Your task to perform on an android device: Go to notification settings Image 0: 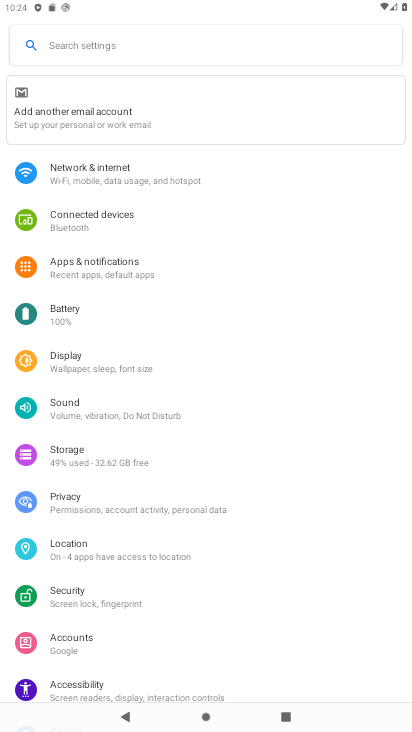
Step 0: click (86, 270)
Your task to perform on an android device: Go to notification settings Image 1: 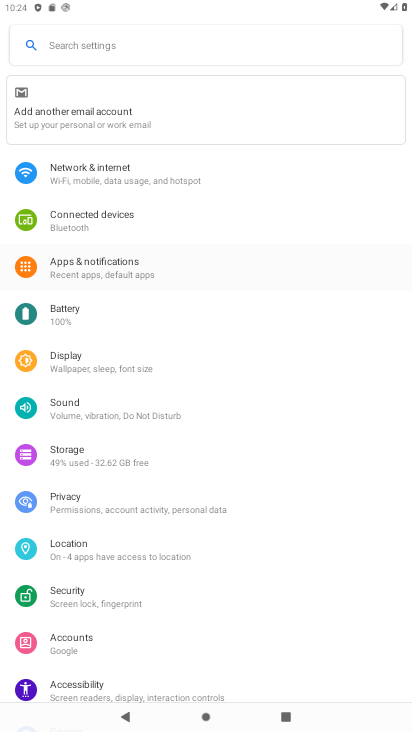
Step 1: click (86, 270)
Your task to perform on an android device: Go to notification settings Image 2: 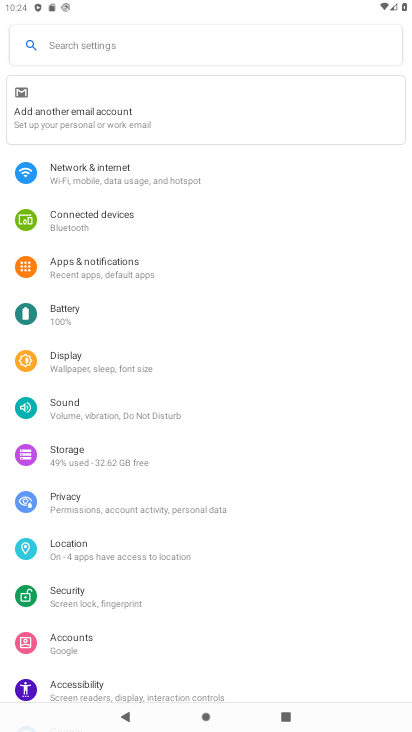
Step 2: click (86, 267)
Your task to perform on an android device: Go to notification settings Image 3: 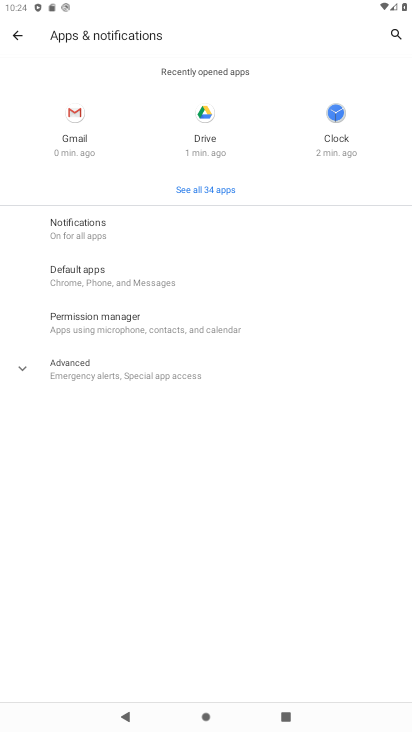
Step 3: click (75, 233)
Your task to perform on an android device: Go to notification settings Image 4: 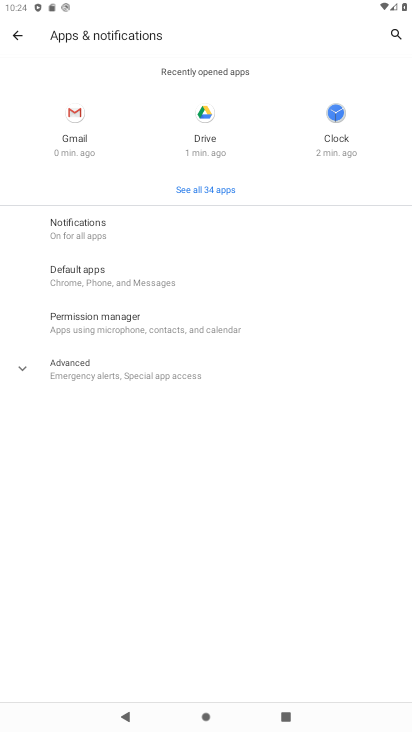
Step 4: click (81, 218)
Your task to perform on an android device: Go to notification settings Image 5: 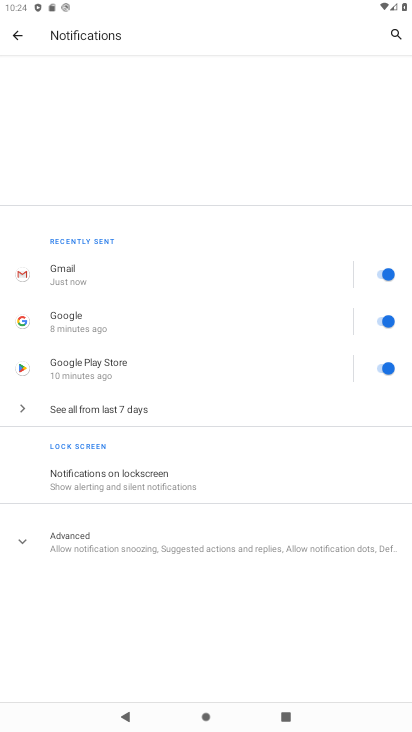
Step 5: task complete